Your task to perform on an android device: Show the shopping cart on walmart.com. Add "macbook pro 13 inch" to the cart on walmart.com, then select checkout. Image 0: 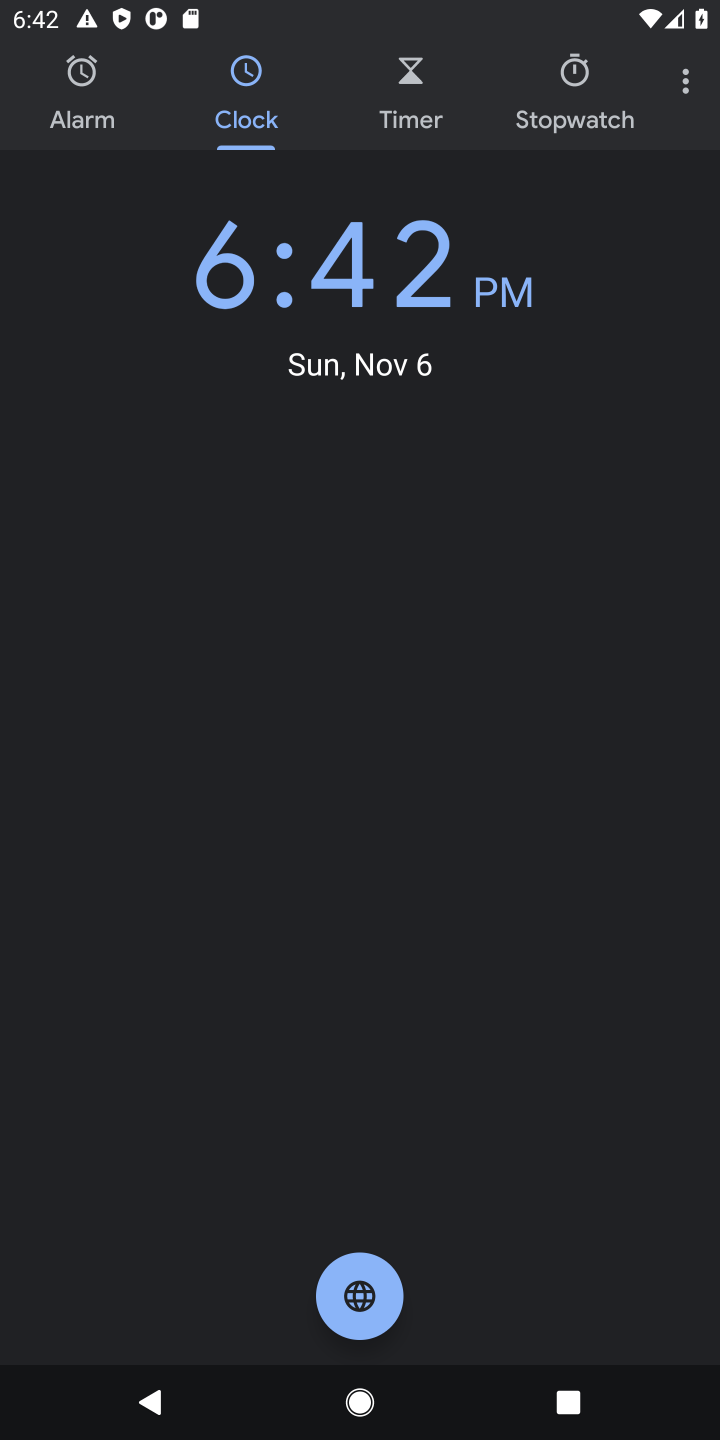
Step 0: press home button
Your task to perform on an android device: Show the shopping cart on walmart.com. Add "macbook pro 13 inch" to the cart on walmart.com, then select checkout. Image 1: 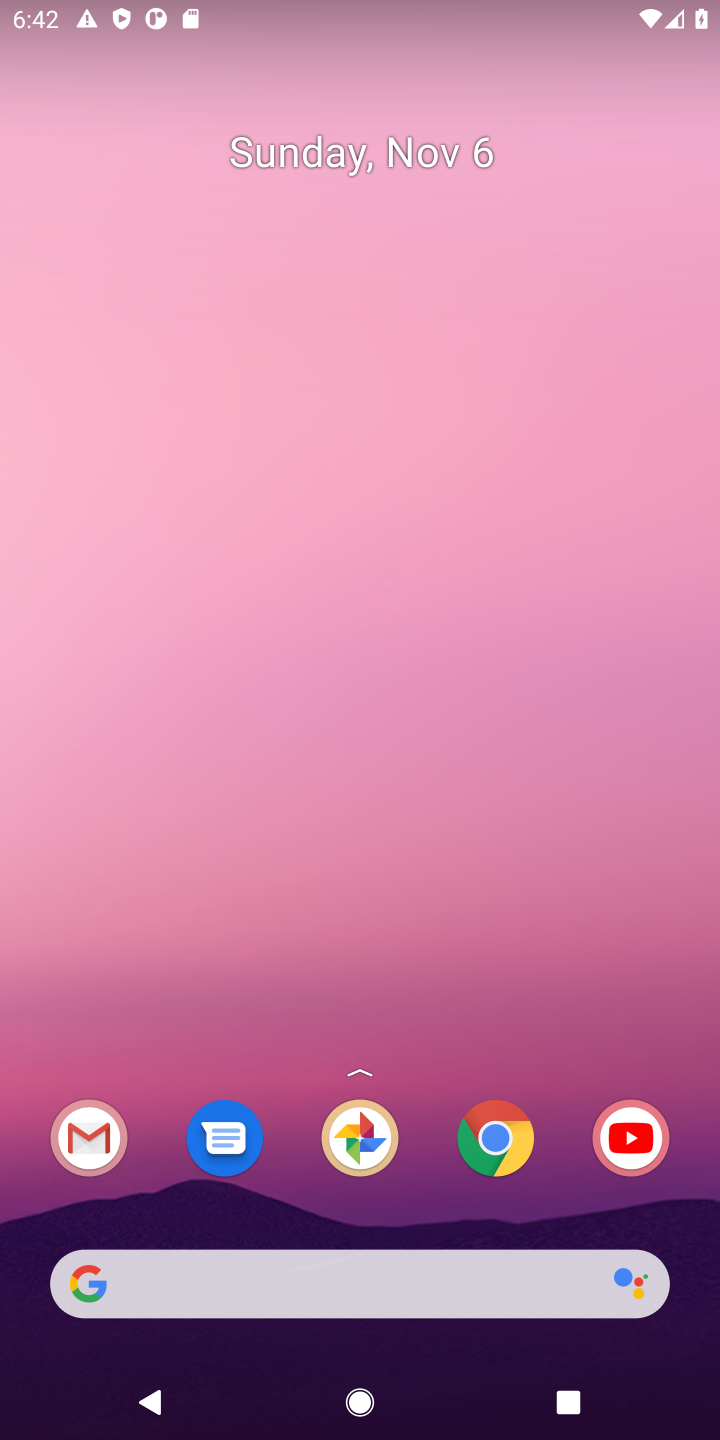
Step 1: click (521, 1139)
Your task to perform on an android device: Show the shopping cart on walmart.com. Add "macbook pro 13 inch" to the cart on walmart.com, then select checkout. Image 2: 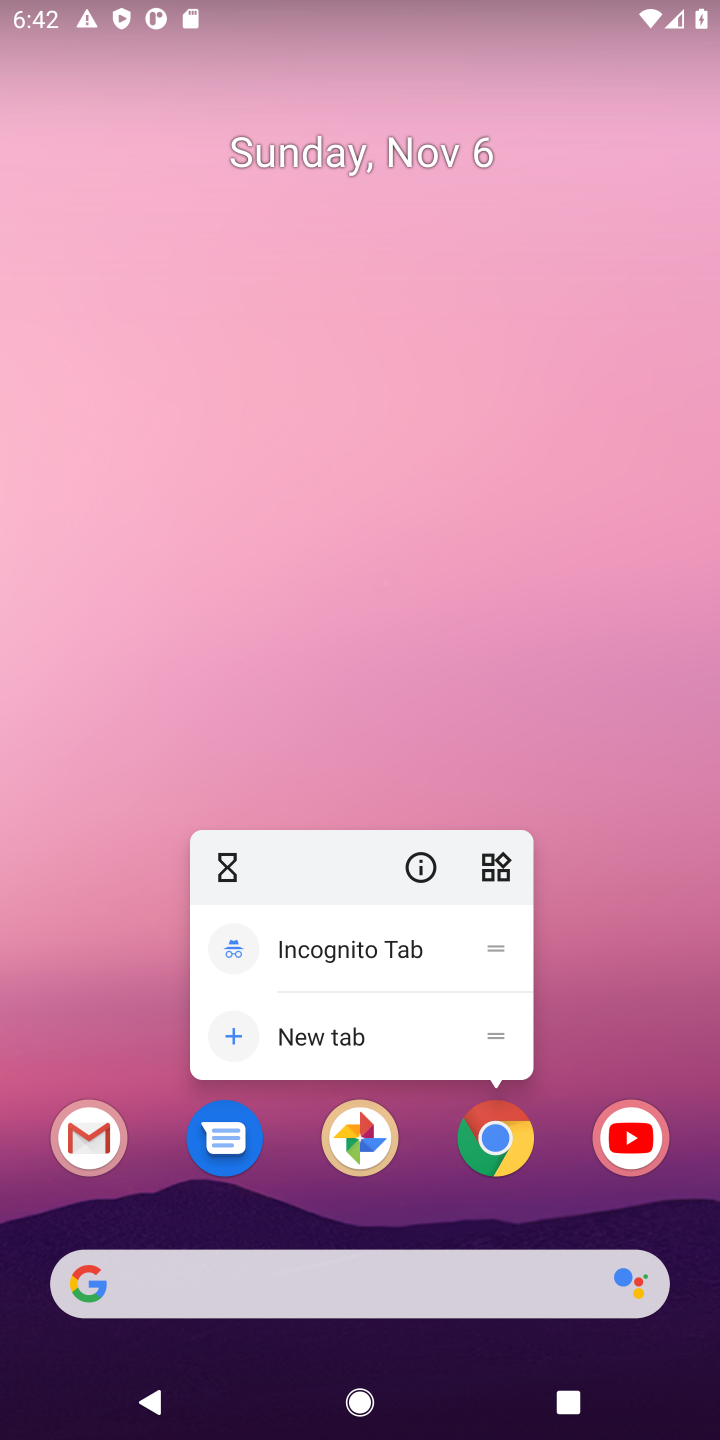
Step 2: click (485, 1143)
Your task to perform on an android device: Show the shopping cart on walmart.com. Add "macbook pro 13 inch" to the cart on walmart.com, then select checkout. Image 3: 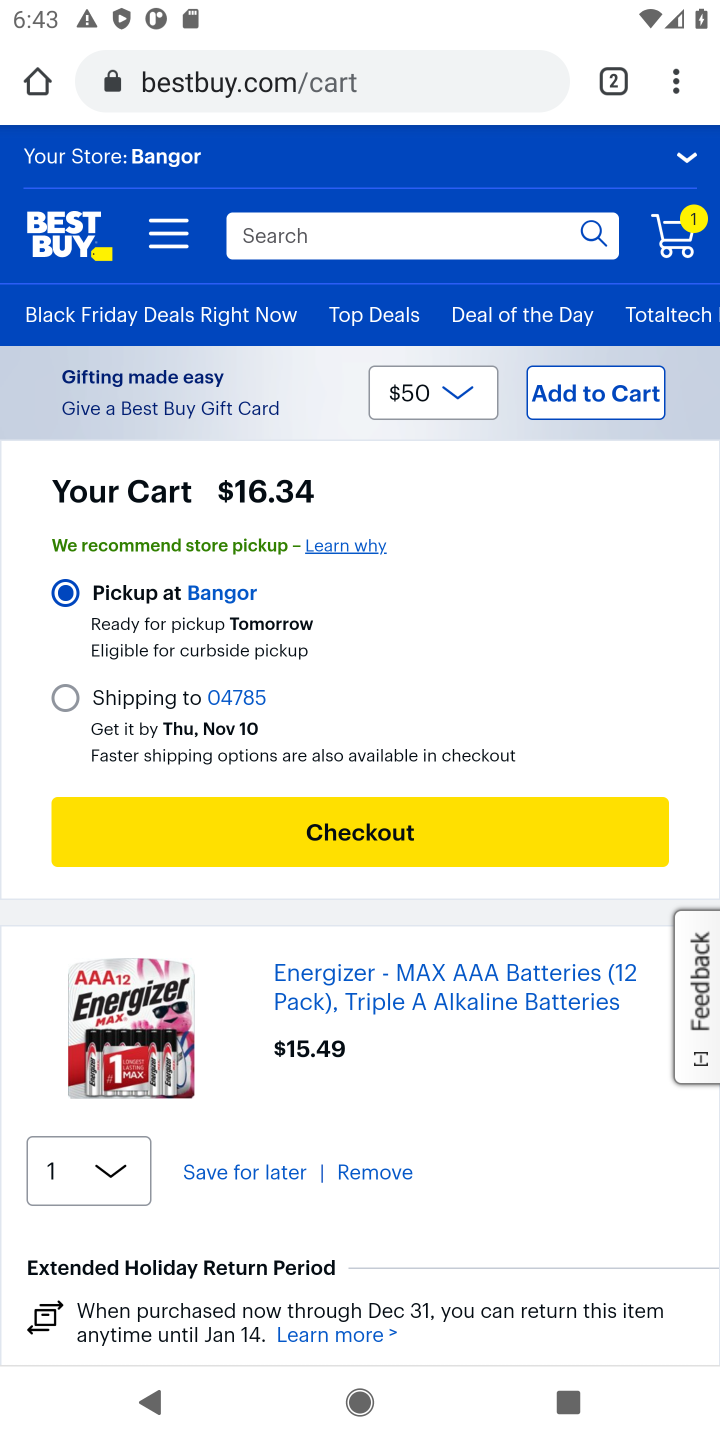
Step 3: click (610, 66)
Your task to perform on an android device: Show the shopping cart on walmart.com. Add "macbook pro 13 inch" to the cart on walmart.com, then select checkout. Image 4: 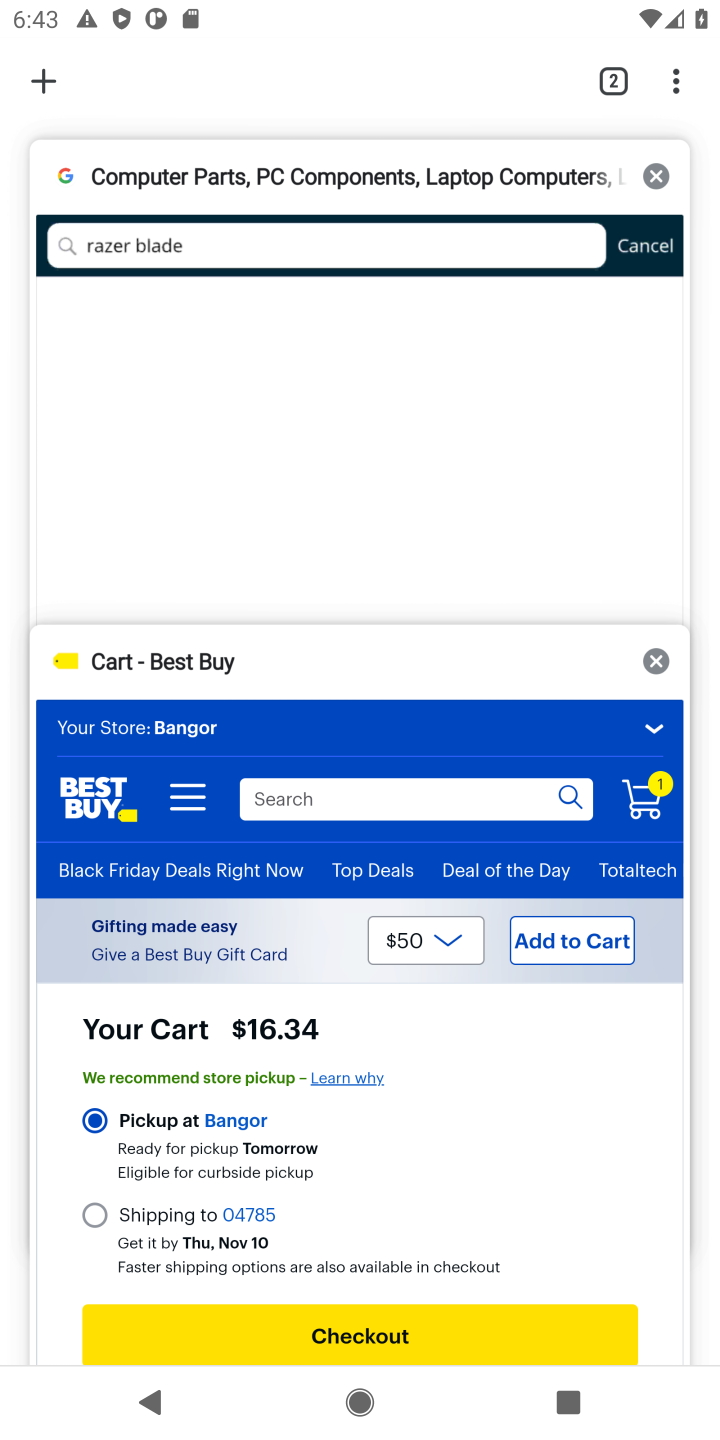
Step 4: click (59, 90)
Your task to perform on an android device: Show the shopping cart on walmart.com. Add "macbook pro 13 inch" to the cart on walmart.com, then select checkout. Image 5: 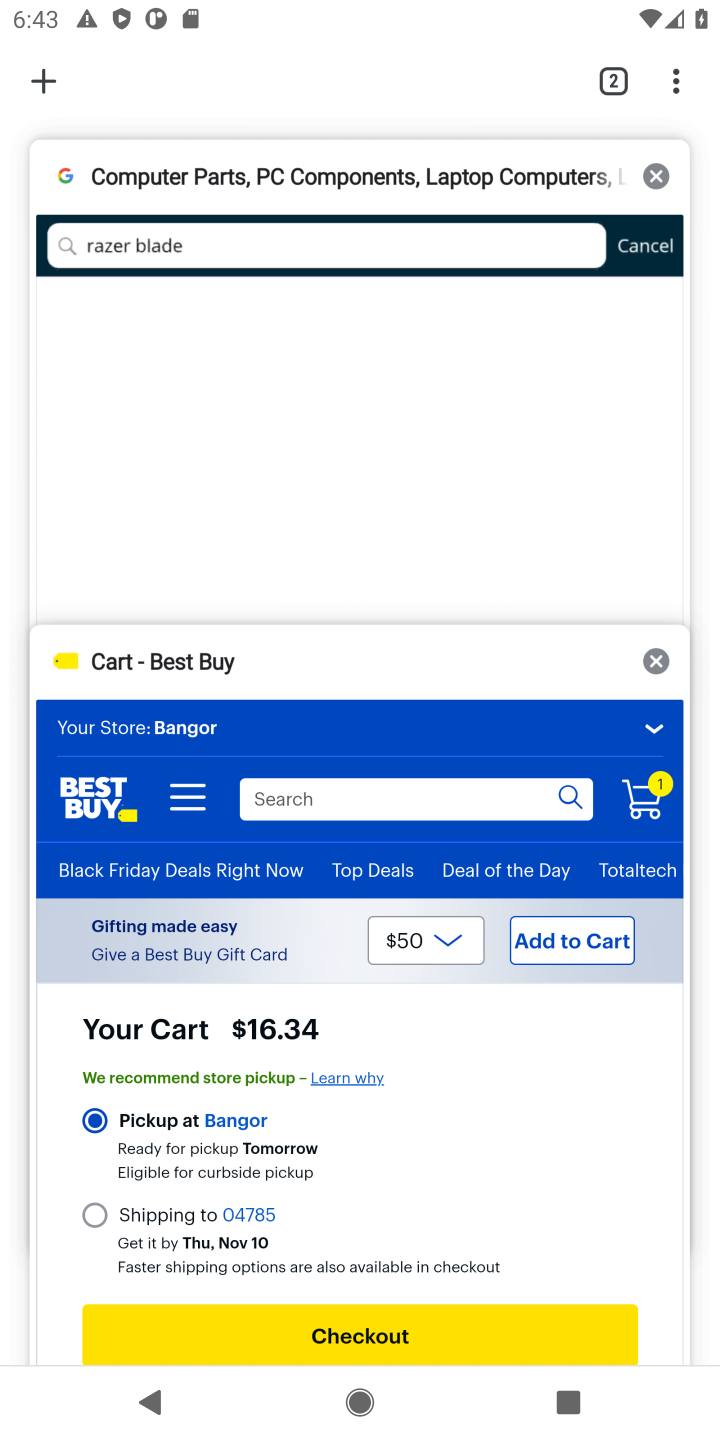
Step 5: click (42, 67)
Your task to perform on an android device: Show the shopping cart on walmart.com. Add "macbook pro 13 inch" to the cart on walmart.com, then select checkout. Image 6: 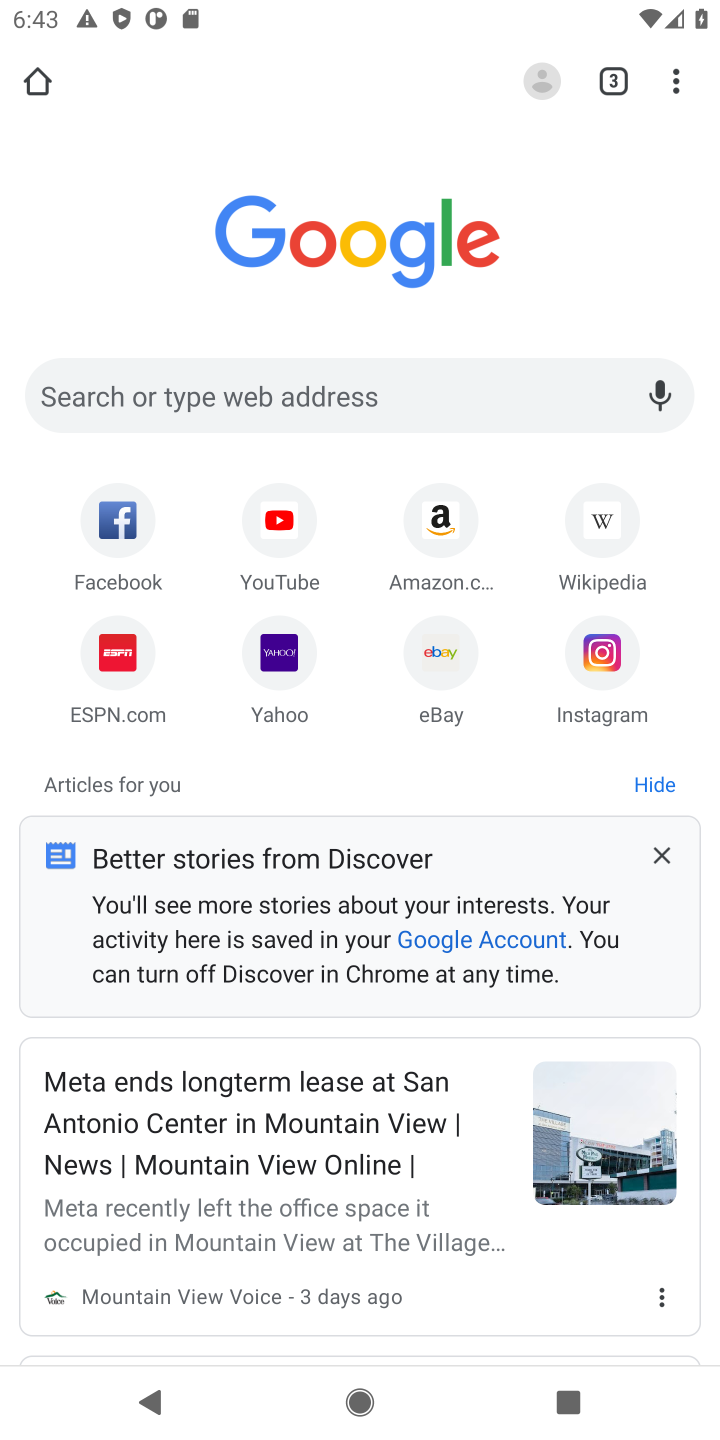
Step 6: click (247, 383)
Your task to perform on an android device: Show the shopping cart on walmart.com. Add "macbook pro 13 inch" to the cart on walmart.com, then select checkout. Image 7: 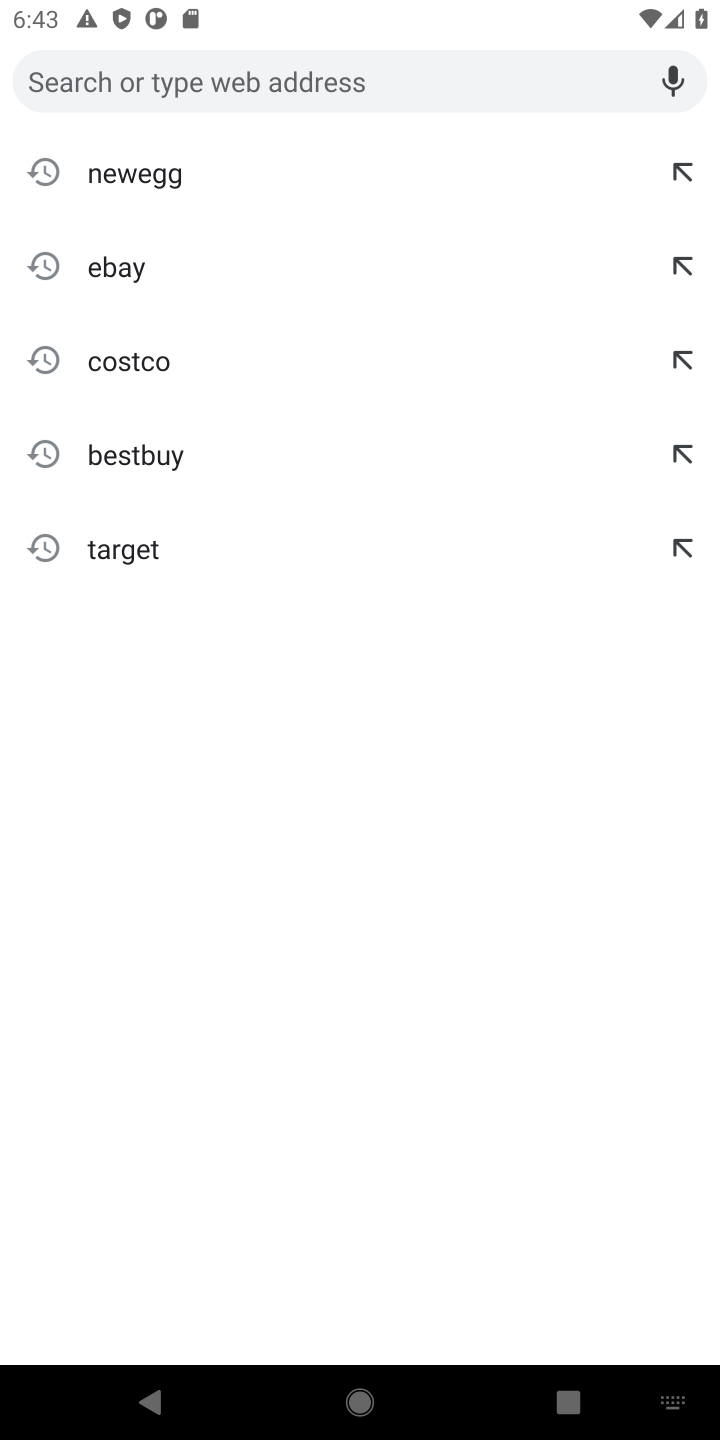
Step 7: click (149, 57)
Your task to perform on an android device: Show the shopping cart on walmart.com. Add "macbook pro 13 inch" to the cart on walmart.com, then select checkout. Image 8: 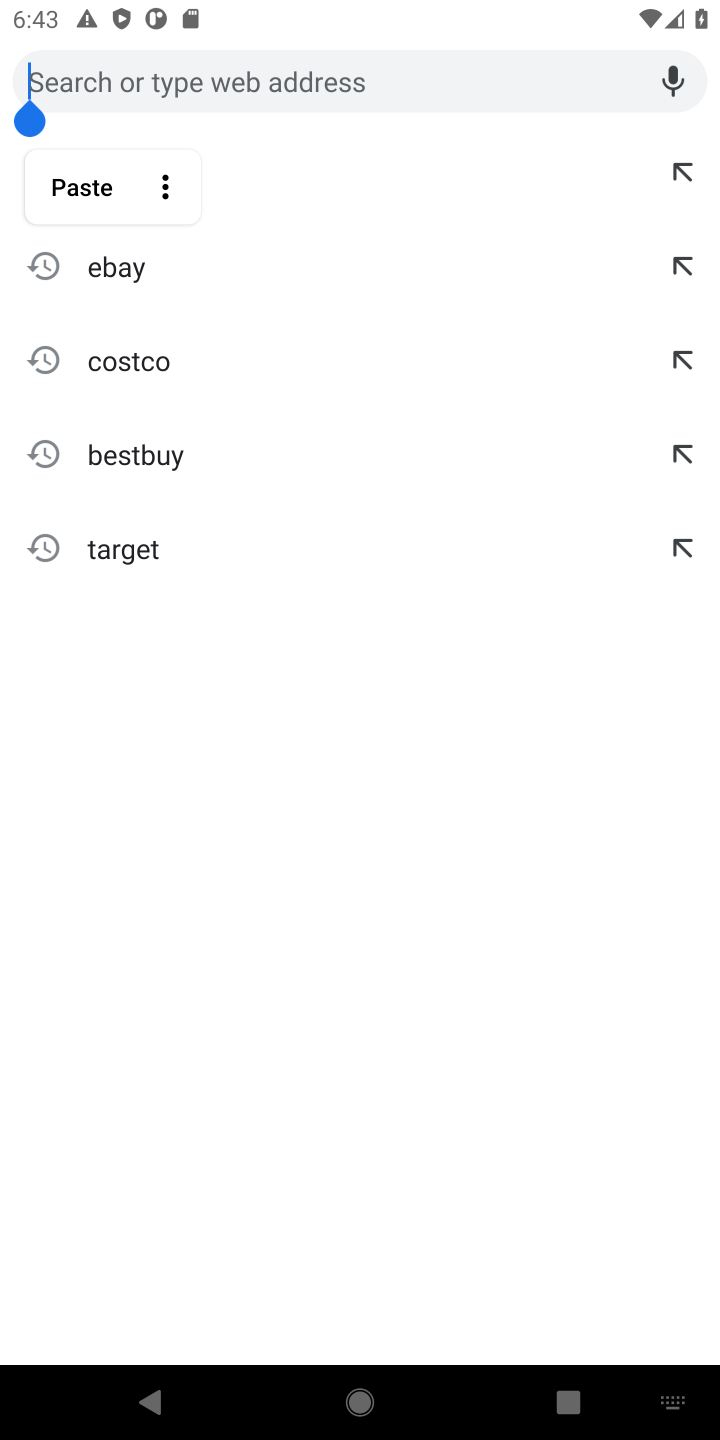
Step 8: type "walmart.com"
Your task to perform on an android device: Show the shopping cart on walmart.com. Add "macbook pro 13 inch" to the cart on walmart.com, then select checkout. Image 9: 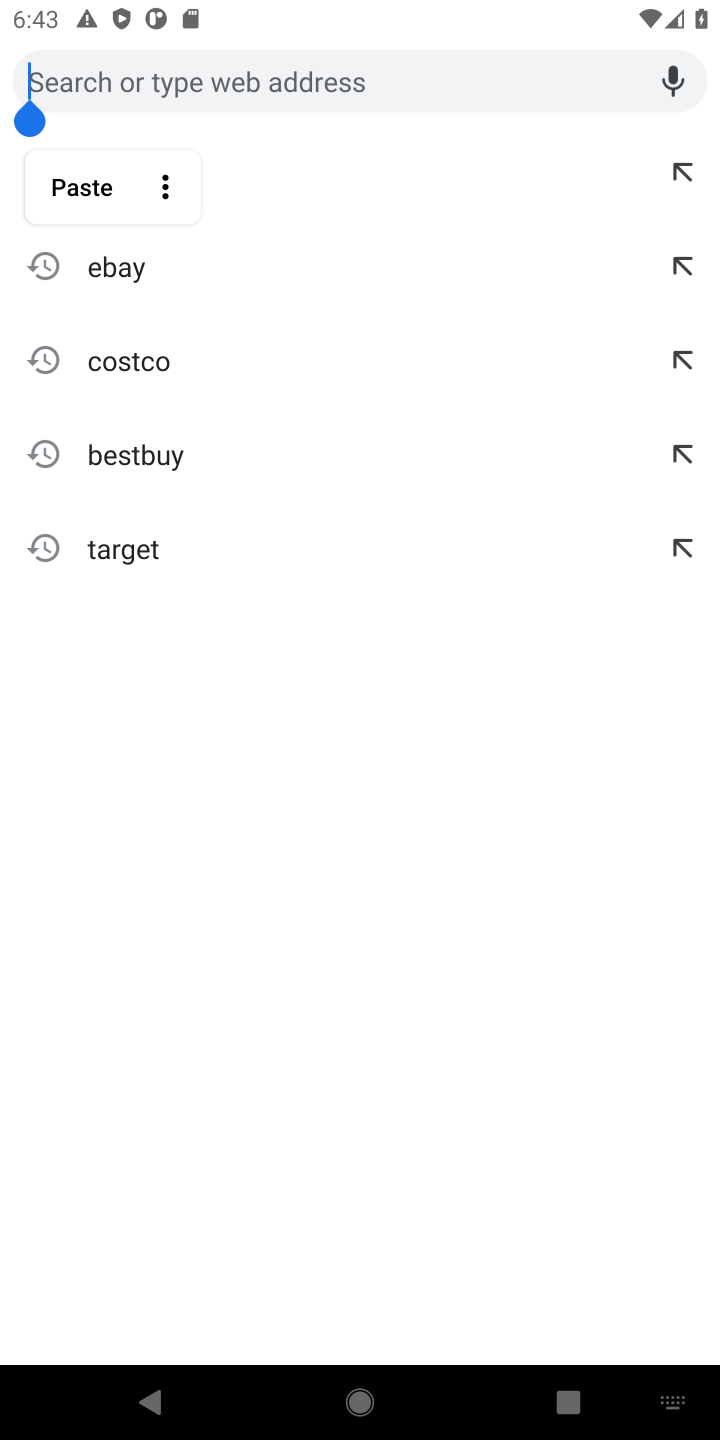
Step 9: click (346, 1031)
Your task to perform on an android device: Show the shopping cart on walmart.com. Add "macbook pro 13 inch" to the cart on walmart.com, then select checkout. Image 10: 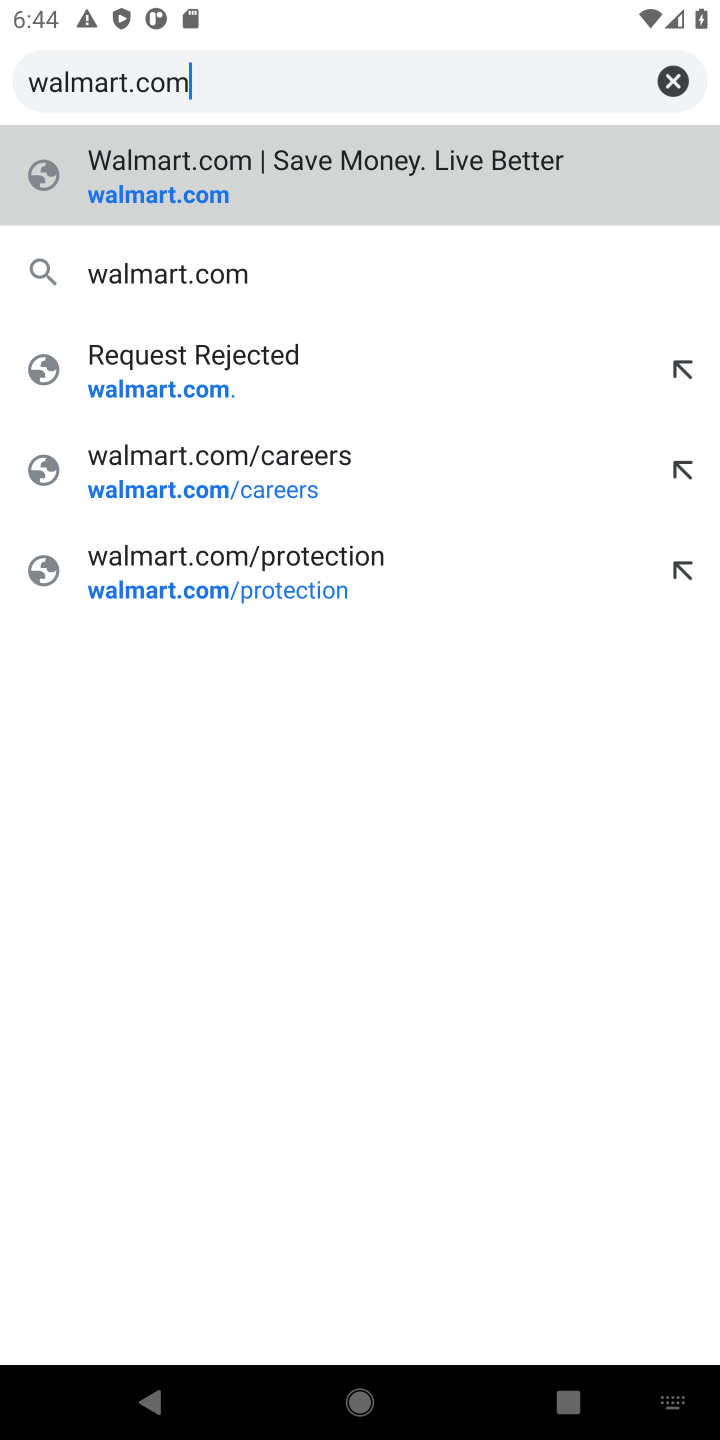
Step 10: click (213, 153)
Your task to perform on an android device: Show the shopping cart on walmart.com. Add "macbook pro 13 inch" to the cart on walmart.com, then select checkout. Image 11: 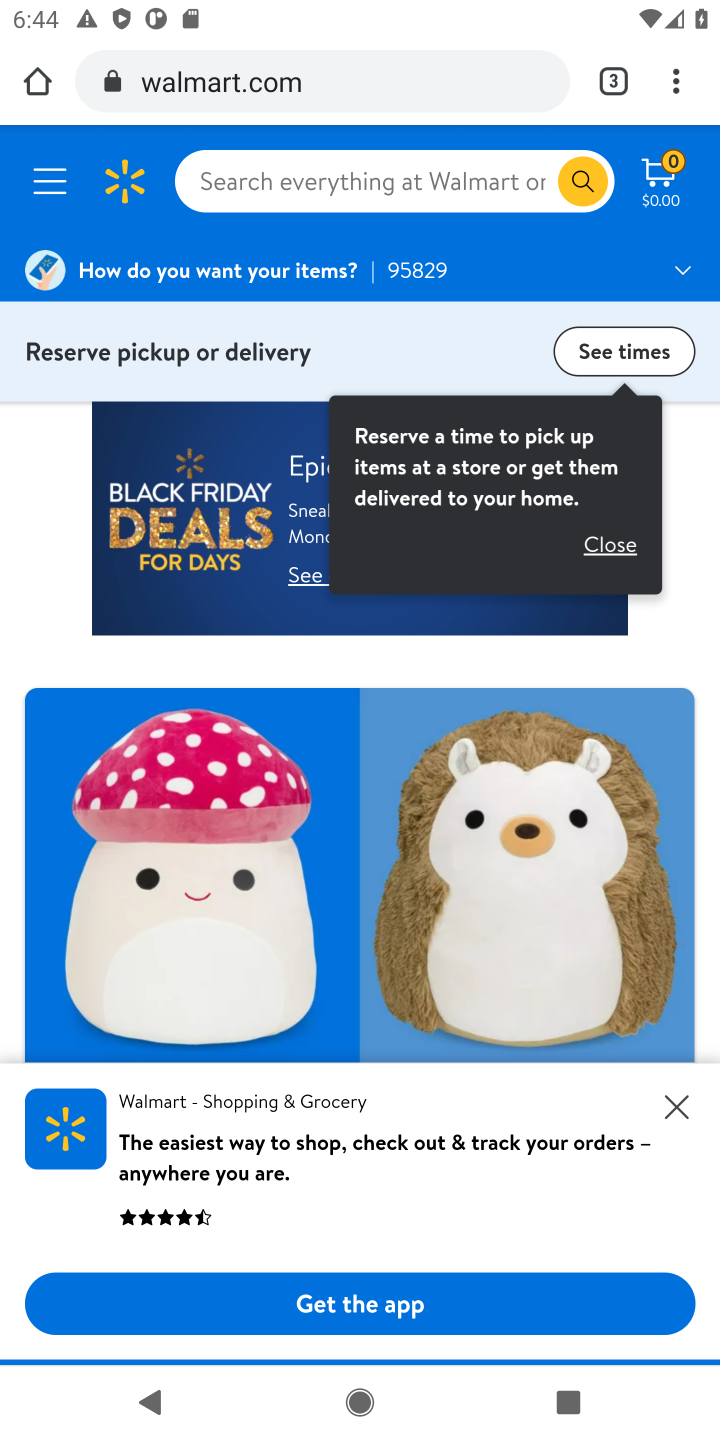
Step 11: click (310, 184)
Your task to perform on an android device: Show the shopping cart on walmart.com. Add "macbook pro 13 inch" to the cart on walmart.com, then select checkout. Image 12: 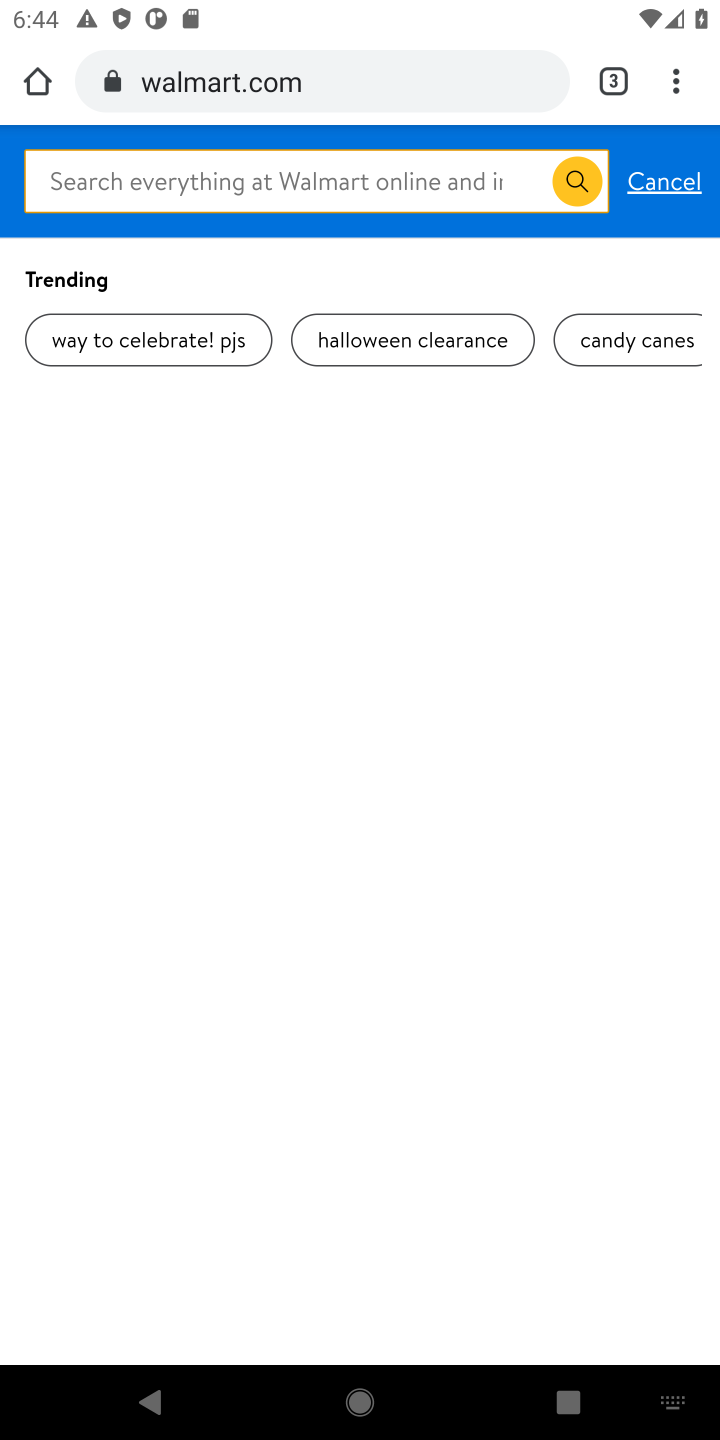
Step 12: type "macbook pro 13 inch"
Your task to perform on an android device: Show the shopping cart on walmart.com. Add "macbook pro 13 inch" to the cart on walmart.com, then select checkout. Image 13: 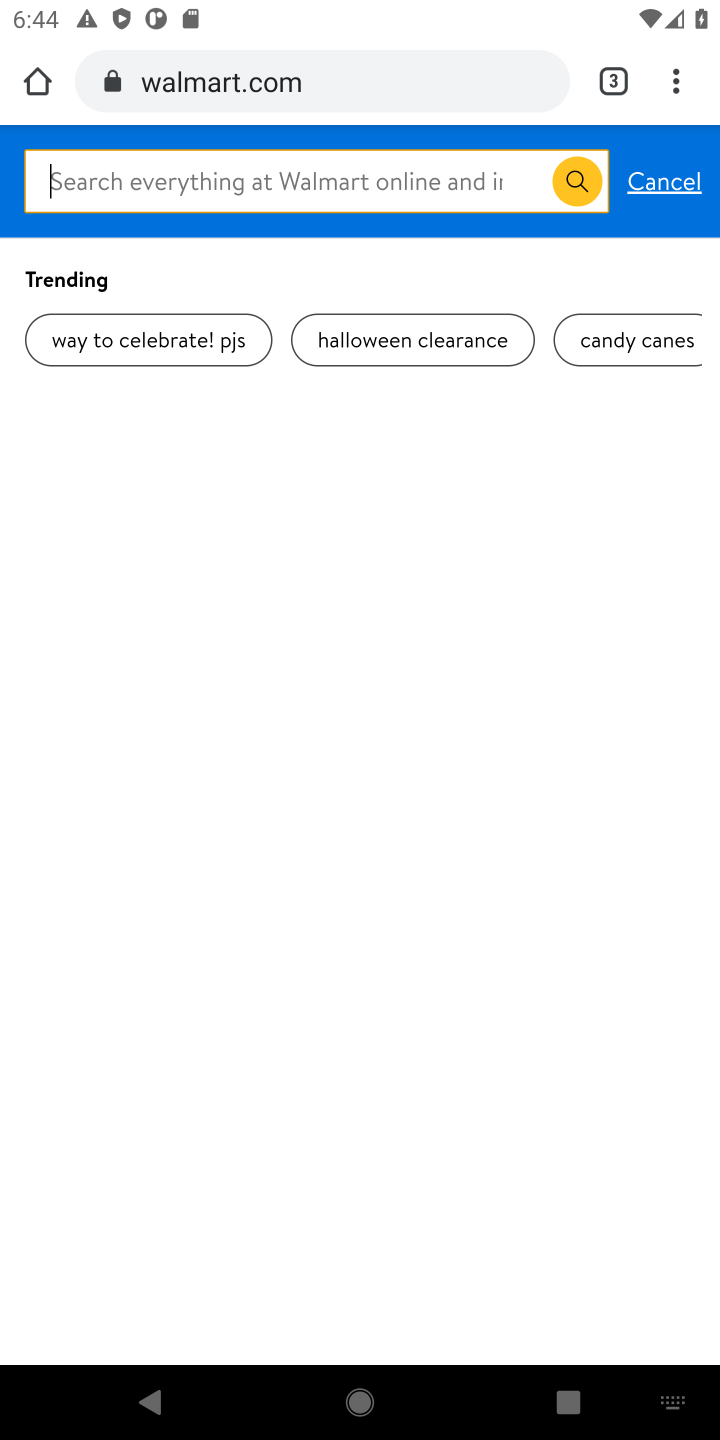
Step 13: click (427, 973)
Your task to perform on an android device: Show the shopping cart on walmart.com. Add "macbook pro 13 inch" to the cart on walmart.com, then select checkout. Image 14: 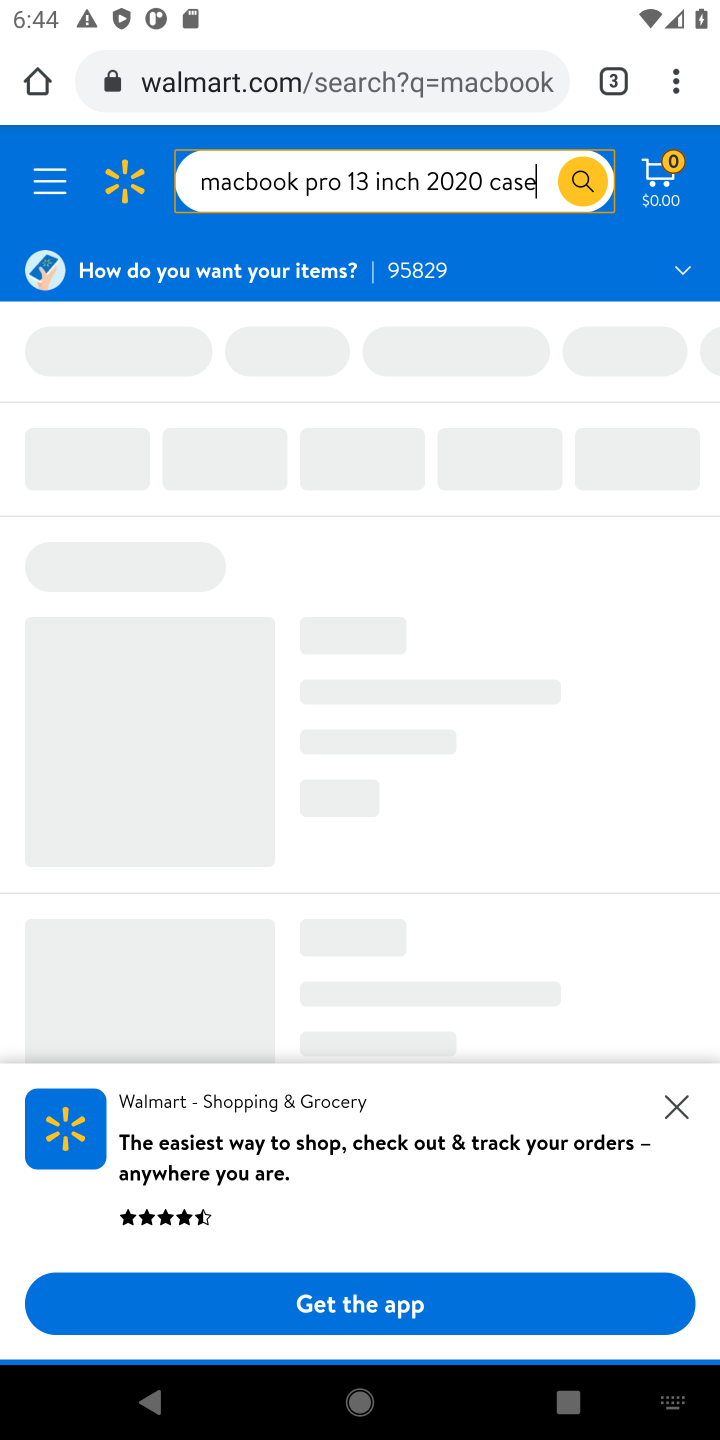
Step 14: click (514, 167)
Your task to perform on an android device: Show the shopping cart on walmart.com. Add "macbook pro 13 inch" to the cart on walmart.com, then select checkout. Image 15: 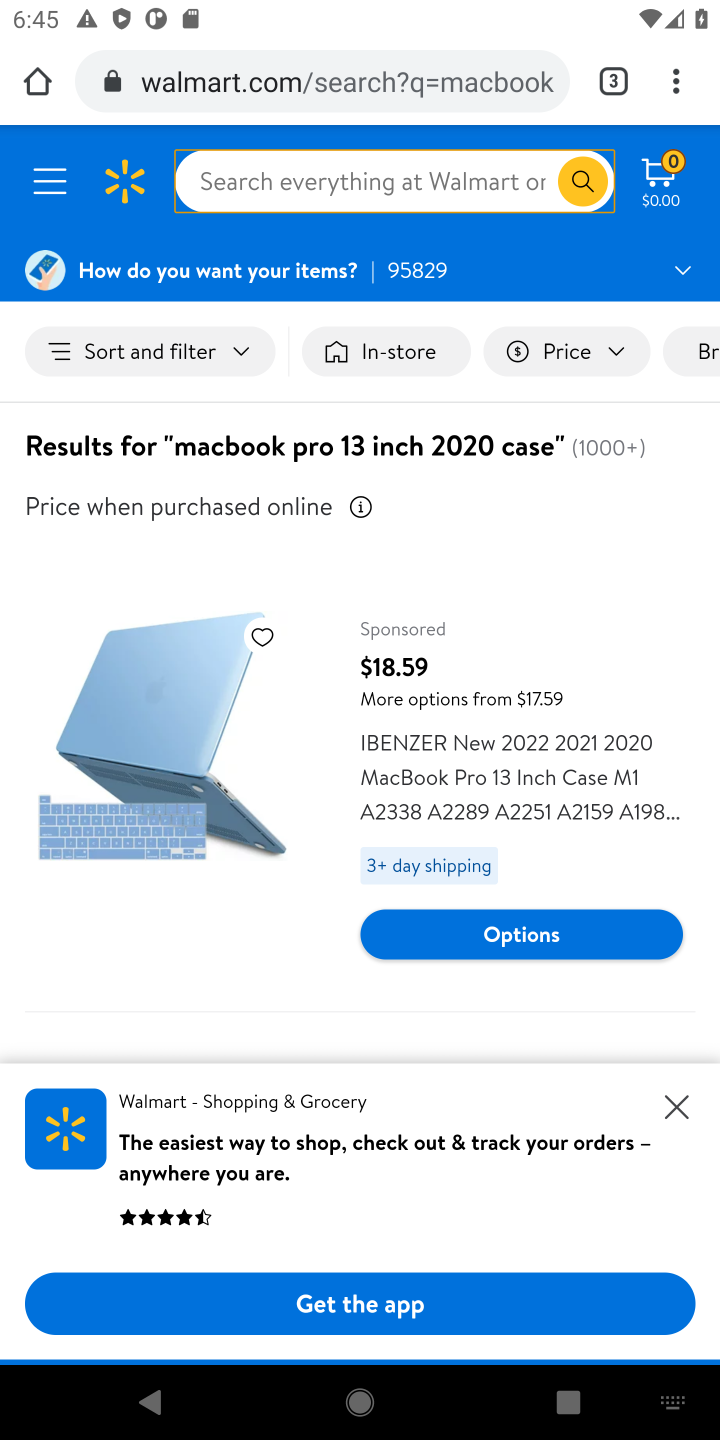
Step 15: type "macbook pro 13 inch"
Your task to perform on an android device: Show the shopping cart on walmart.com. Add "macbook pro 13 inch" to the cart on walmart.com, then select checkout. Image 16: 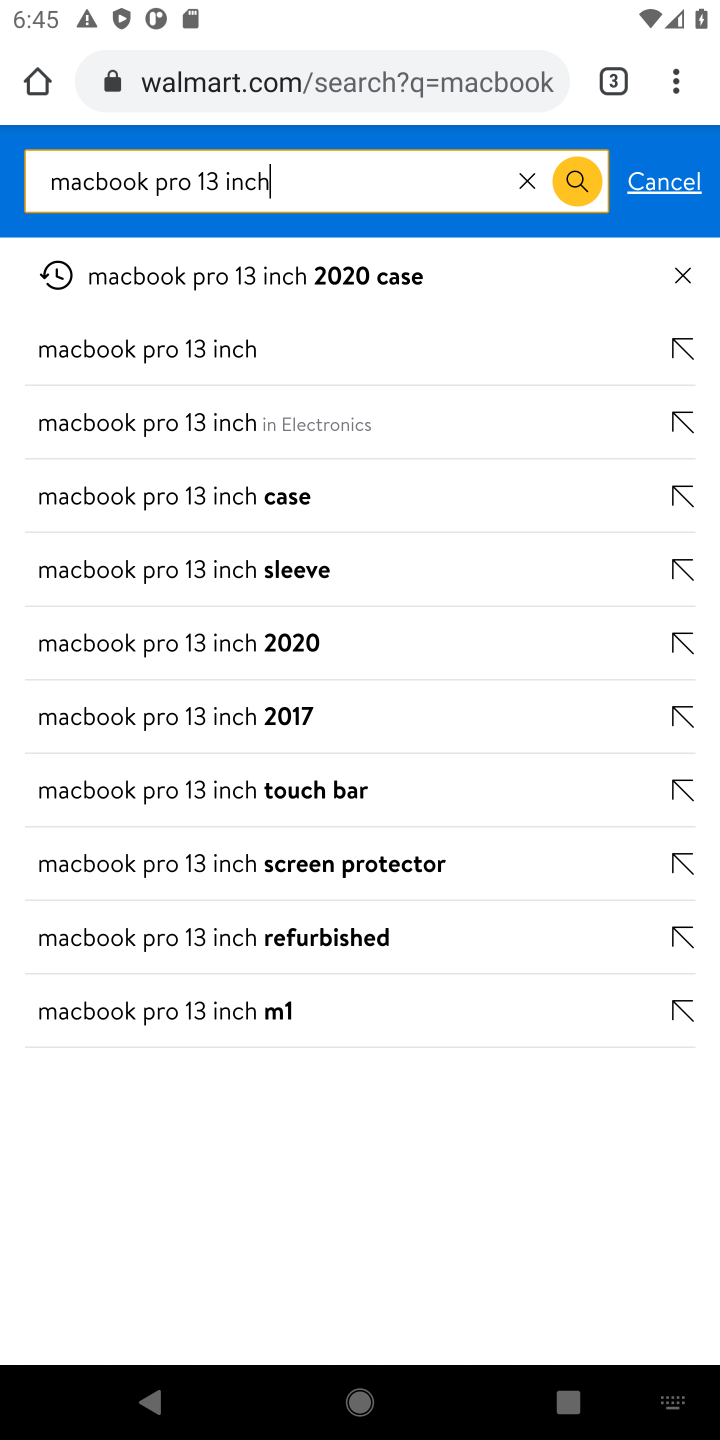
Step 16: click (333, 346)
Your task to perform on an android device: Show the shopping cart on walmart.com. Add "macbook pro 13 inch" to the cart on walmart.com, then select checkout. Image 17: 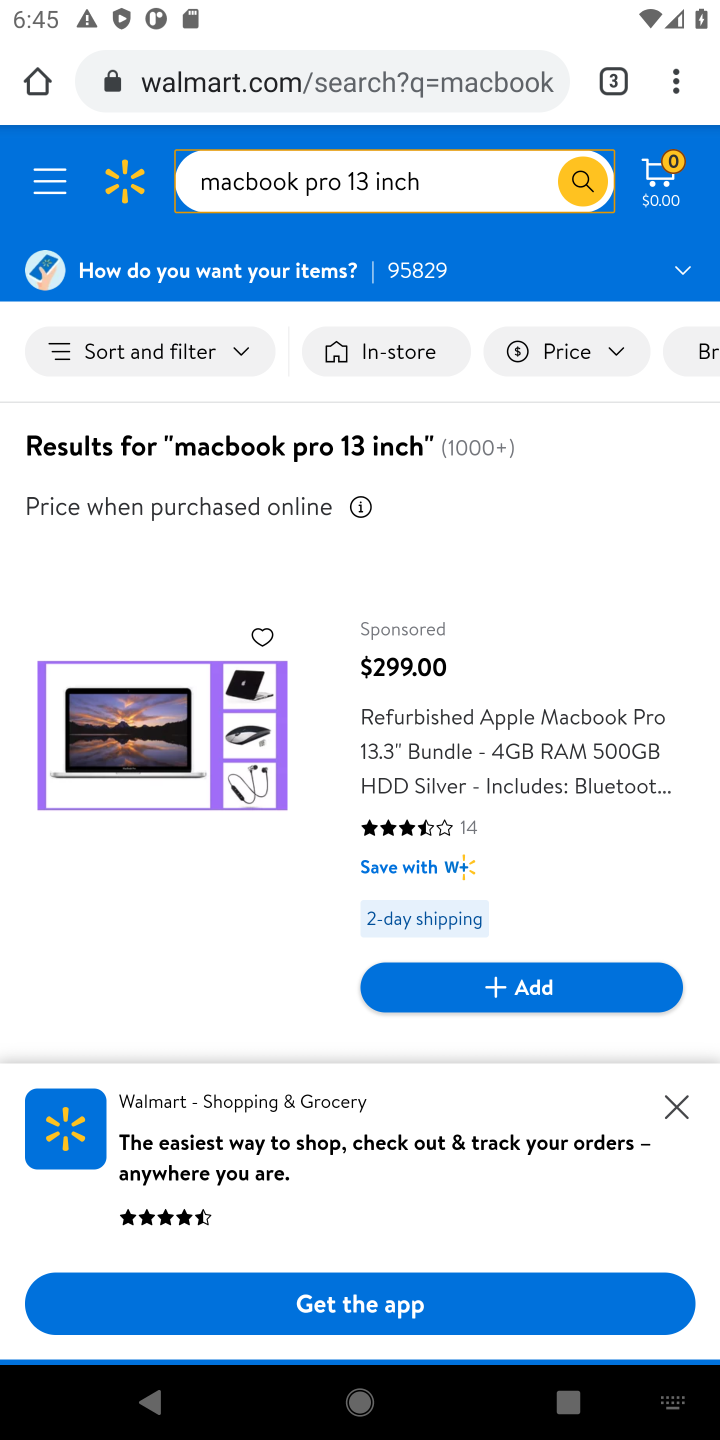
Step 17: drag from (424, 878) to (506, 725)
Your task to perform on an android device: Show the shopping cart on walmart.com. Add "macbook pro 13 inch" to the cart on walmart.com, then select checkout. Image 18: 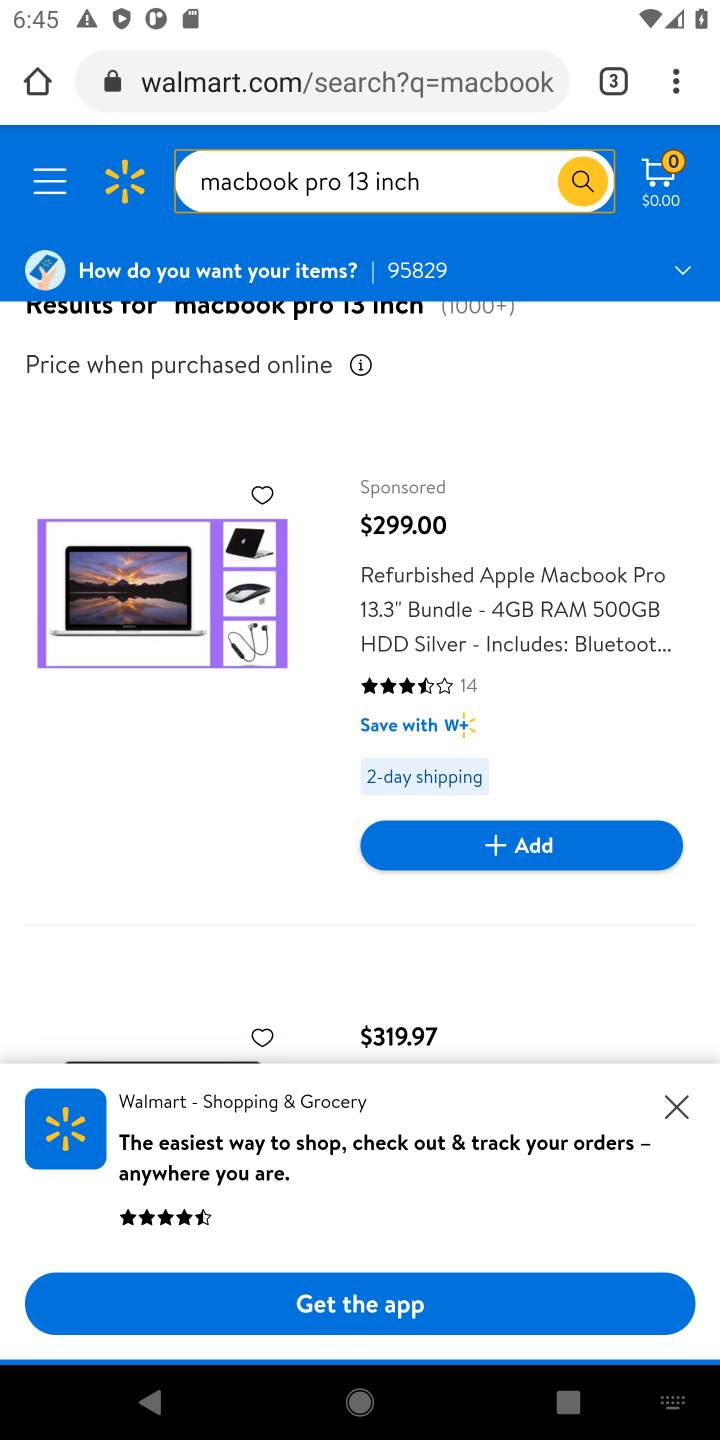
Step 18: click (516, 848)
Your task to perform on an android device: Show the shopping cart on walmart.com. Add "macbook pro 13 inch" to the cart on walmart.com, then select checkout. Image 19: 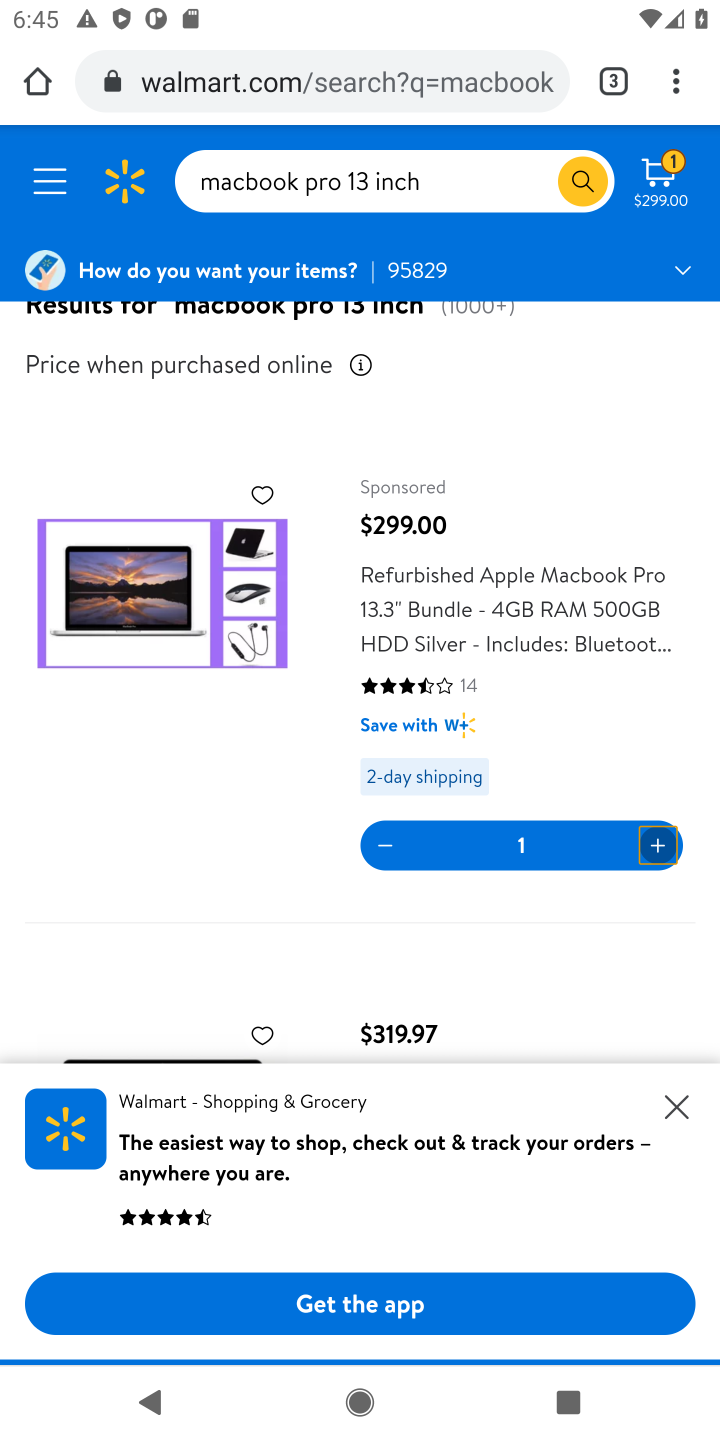
Step 19: click (395, 628)
Your task to perform on an android device: Show the shopping cart on walmart.com. Add "macbook pro 13 inch" to the cart on walmart.com, then select checkout. Image 20: 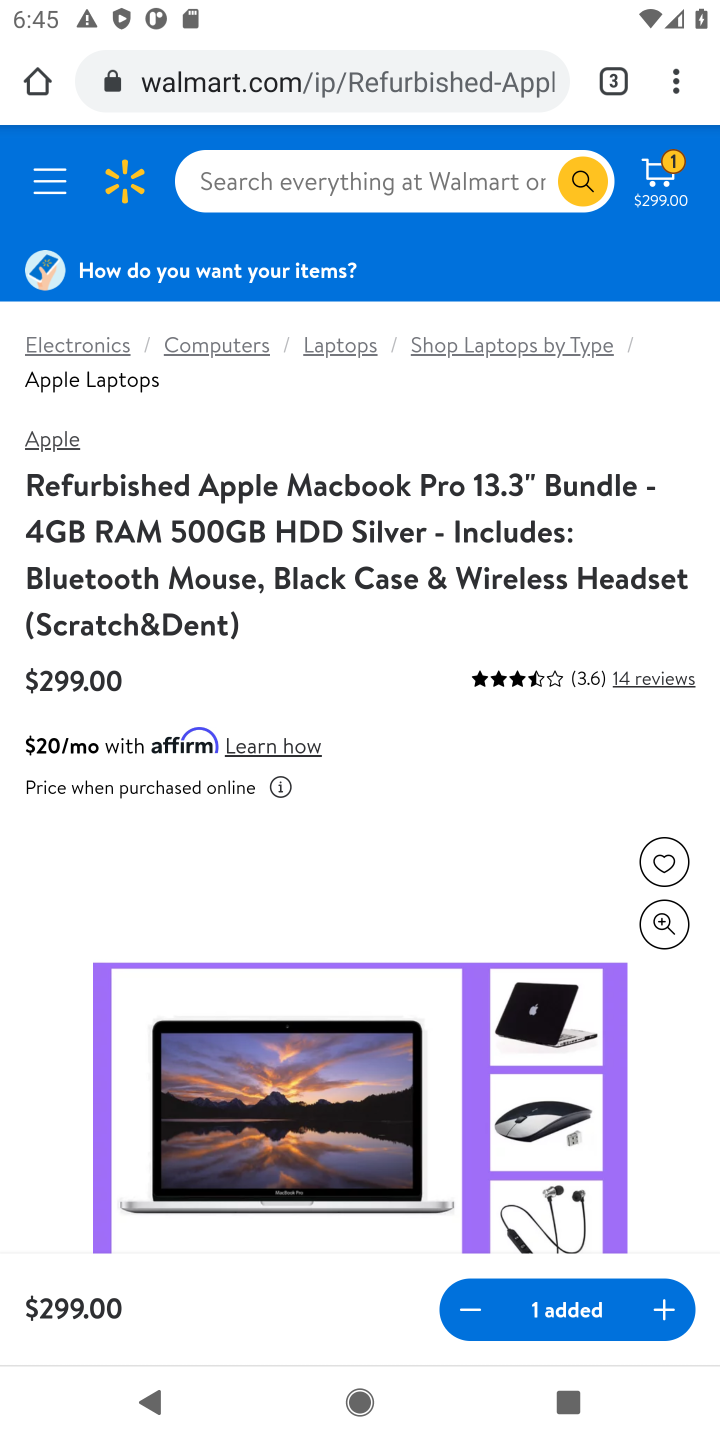
Step 20: drag from (379, 1199) to (483, 624)
Your task to perform on an android device: Show the shopping cart on walmart.com. Add "macbook pro 13 inch" to the cart on walmart.com, then select checkout. Image 21: 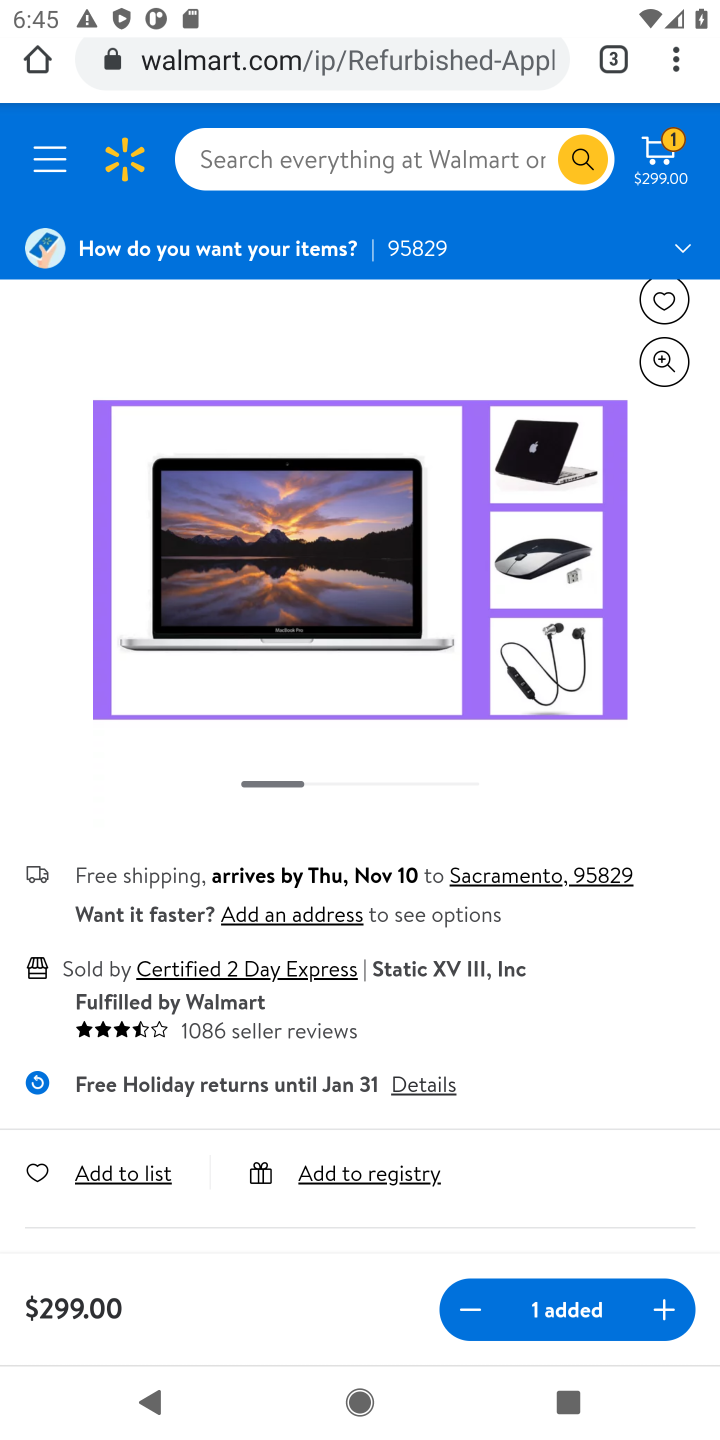
Step 21: drag from (399, 890) to (499, 601)
Your task to perform on an android device: Show the shopping cart on walmart.com. Add "macbook pro 13 inch" to the cart on walmart.com, then select checkout. Image 22: 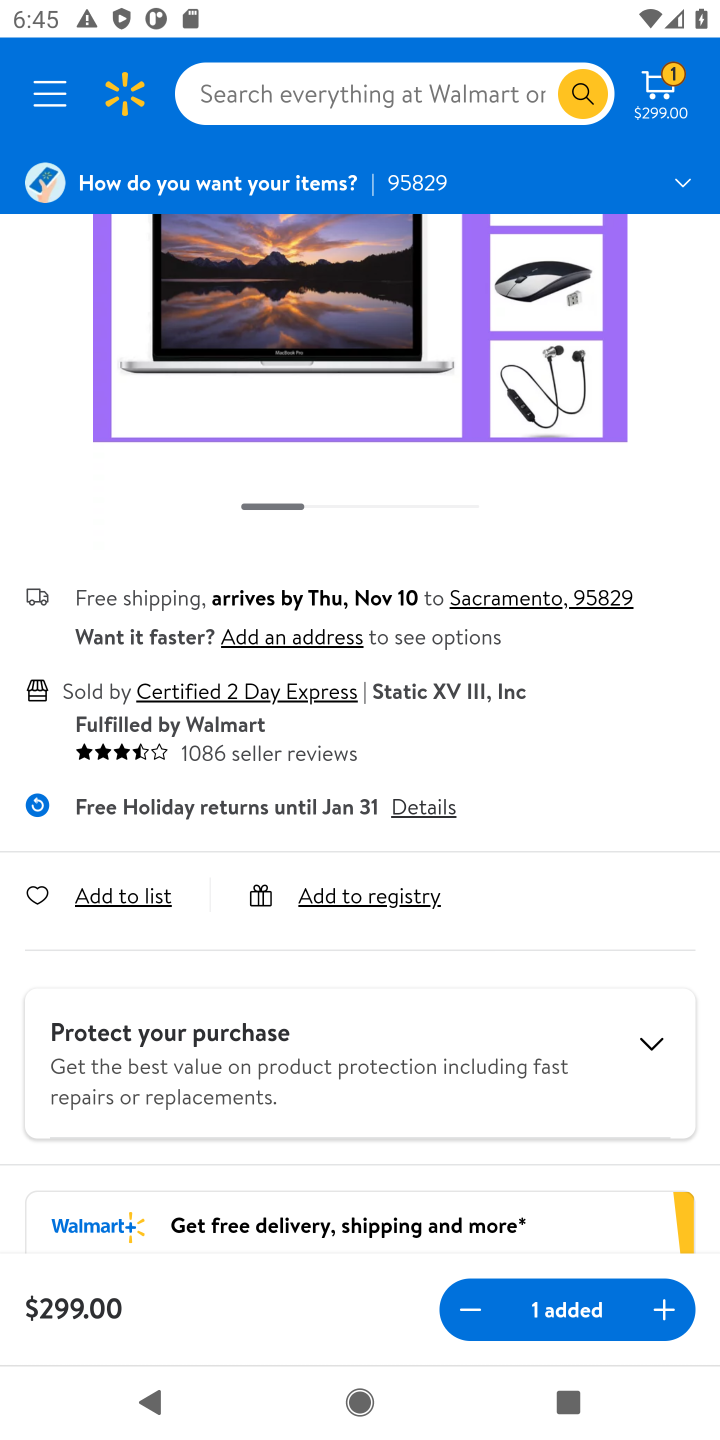
Step 22: drag from (317, 1181) to (489, 576)
Your task to perform on an android device: Show the shopping cart on walmart.com. Add "macbook pro 13 inch" to the cart on walmart.com, then select checkout. Image 23: 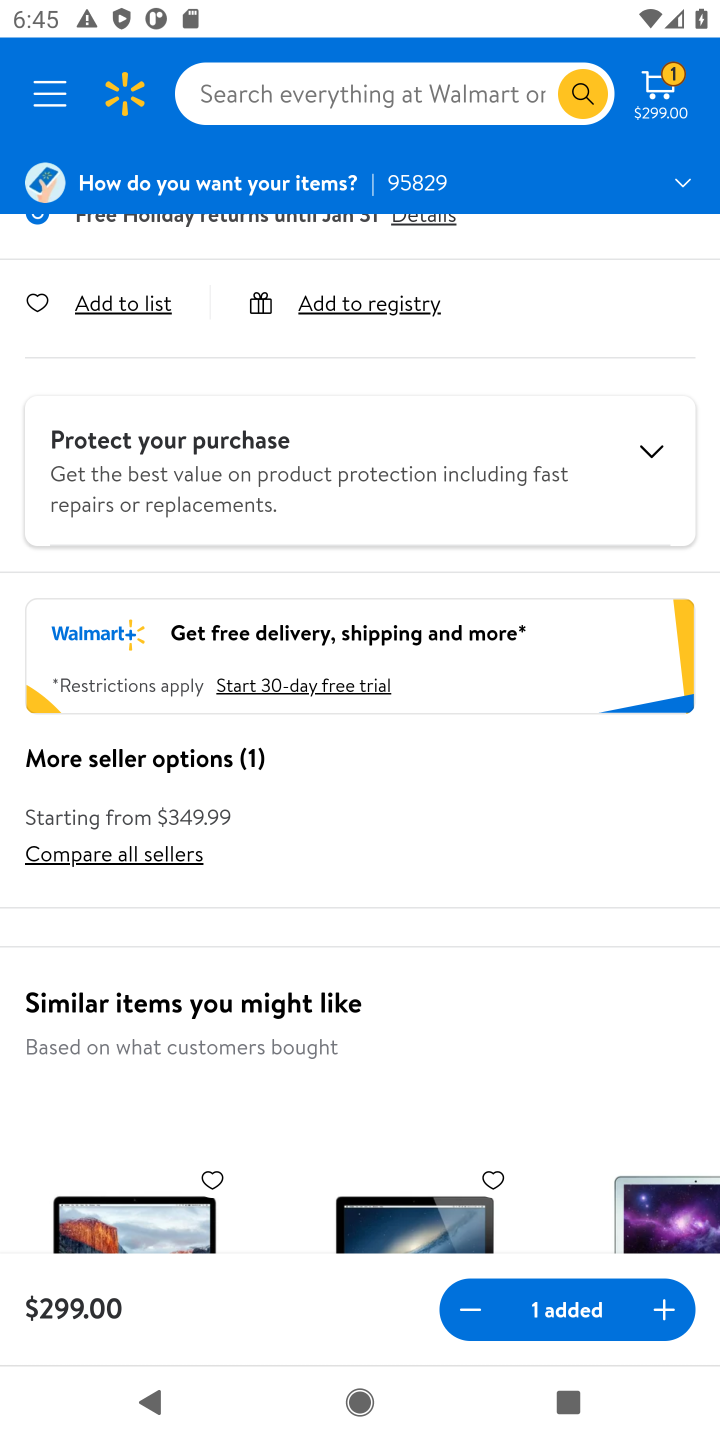
Step 23: click (611, 1317)
Your task to perform on an android device: Show the shopping cart on walmart.com. Add "macbook pro 13 inch" to the cart on walmart.com, then select checkout. Image 24: 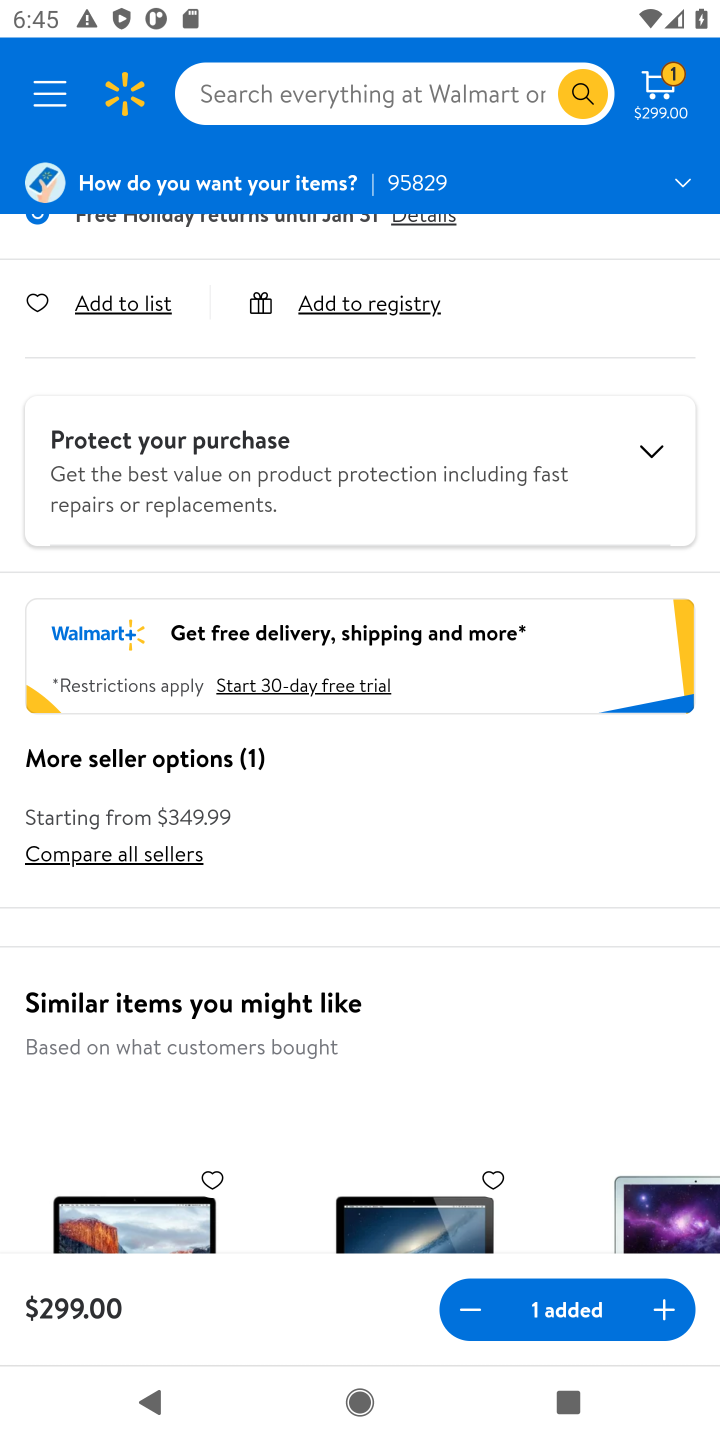
Step 24: task complete